Your task to perform on an android device: What's on my calendar today? Image 0: 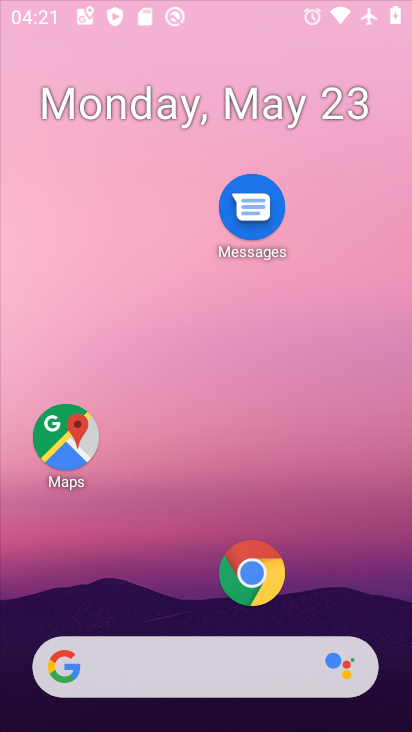
Step 0: drag from (316, 675) to (283, 1)
Your task to perform on an android device: What's on my calendar today? Image 1: 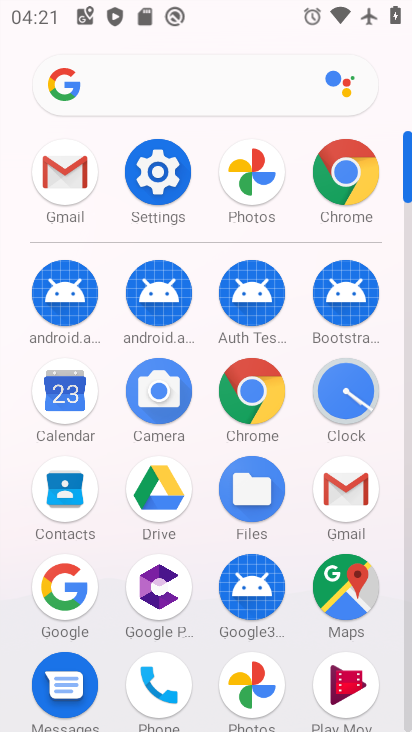
Step 1: click (69, 387)
Your task to perform on an android device: What's on my calendar today? Image 2: 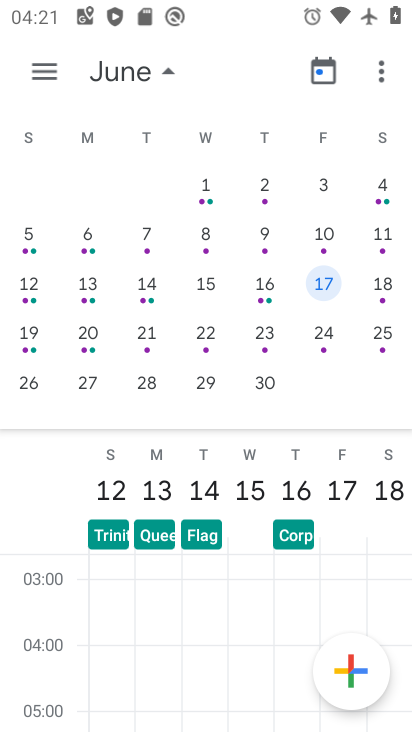
Step 2: drag from (103, 274) to (388, 286)
Your task to perform on an android device: What's on my calendar today? Image 3: 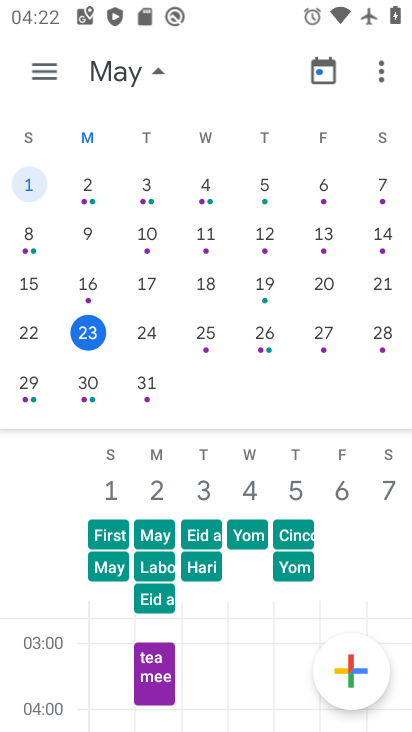
Step 3: click (81, 338)
Your task to perform on an android device: What's on my calendar today? Image 4: 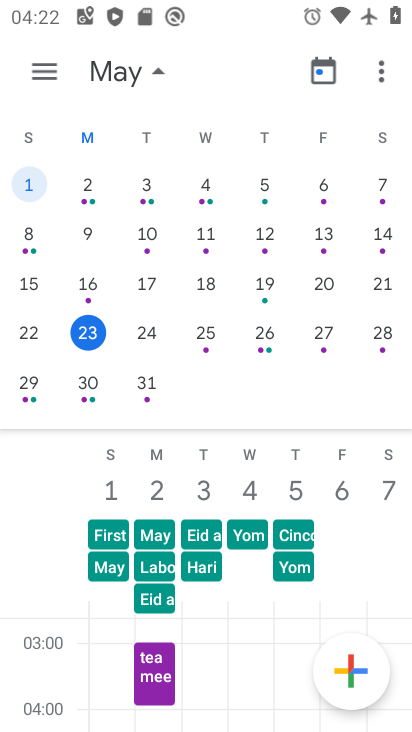
Step 4: click (81, 338)
Your task to perform on an android device: What's on my calendar today? Image 5: 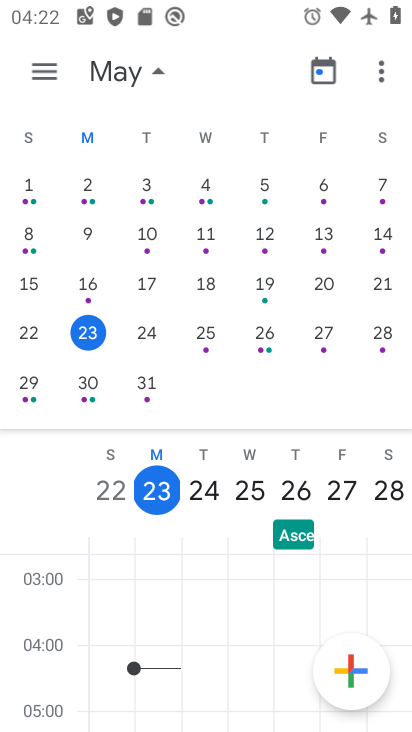
Step 5: task complete